Your task to perform on an android device: see sites visited before in the chrome app Image 0: 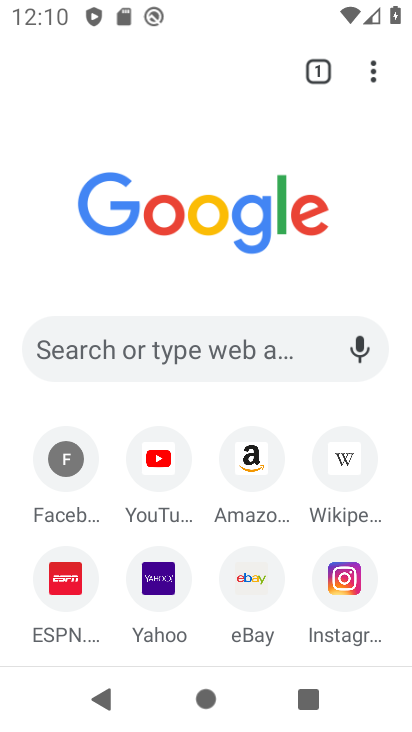
Step 0: press home button
Your task to perform on an android device: see sites visited before in the chrome app Image 1: 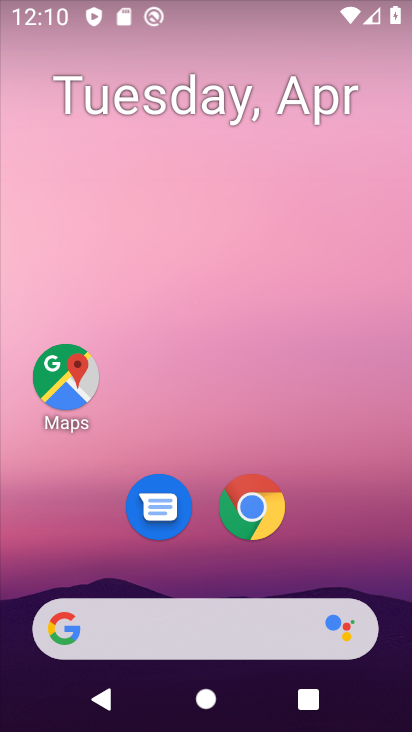
Step 1: click (253, 508)
Your task to perform on an android device: see sites visited before in the chrome app Image 2: 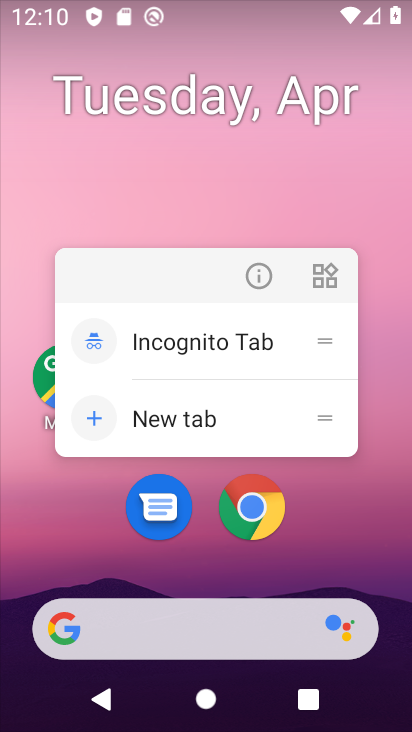
Step 2: click (255, 509)
Your task to perform on an android device: see sites visited before in the chrome app Image 3: 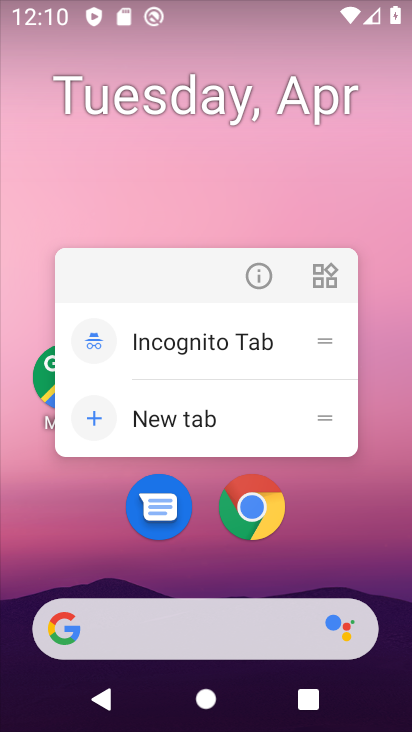
Step 3: click (252, 502)
Your task to perform on an android device: see sites visited before in the chrome app Image 4: 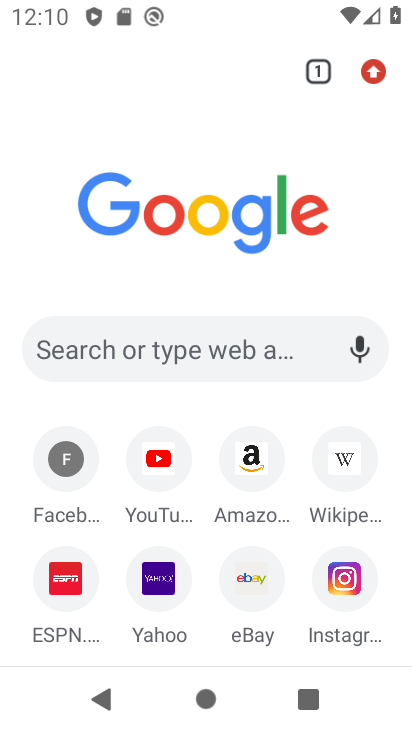
Step 4: click (371, 69)
Your task to perform on an android device: see sites visited before in the chrome app Image 5: 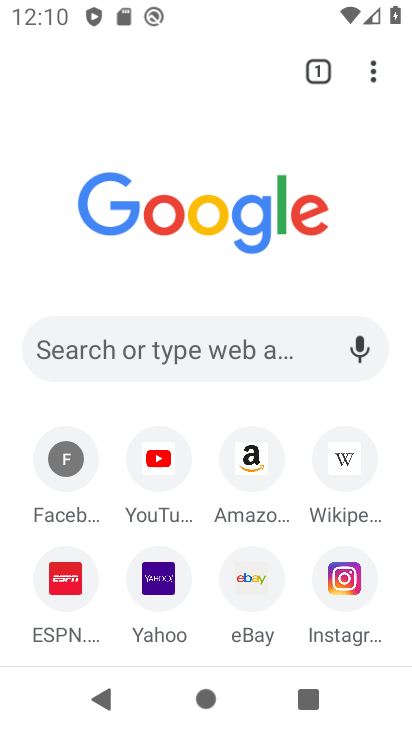
Step 5: click (371, 69)
Your task to perform on an android device: see sites visited before in the chrome app Image 6: 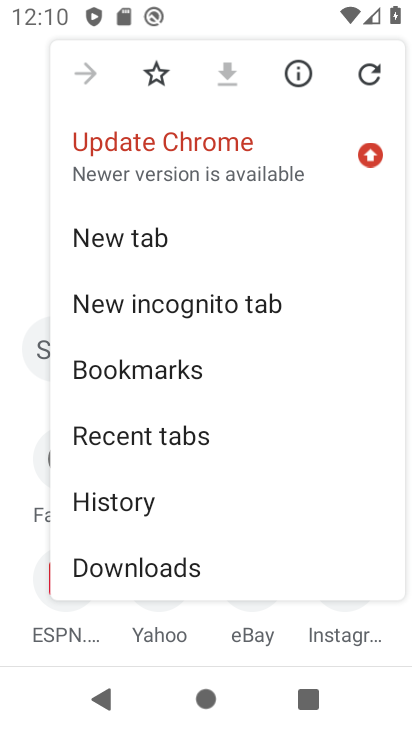
Step 6: click (136, 495)
Your task to perform on an android device: see sites visited before in the chrome app Image 7: 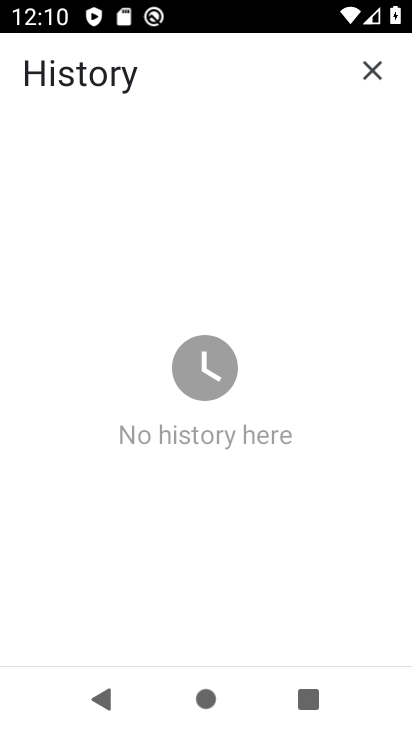
Step 7: task complete